Your task to perform on an android device: Open the stopwatch Image 0: 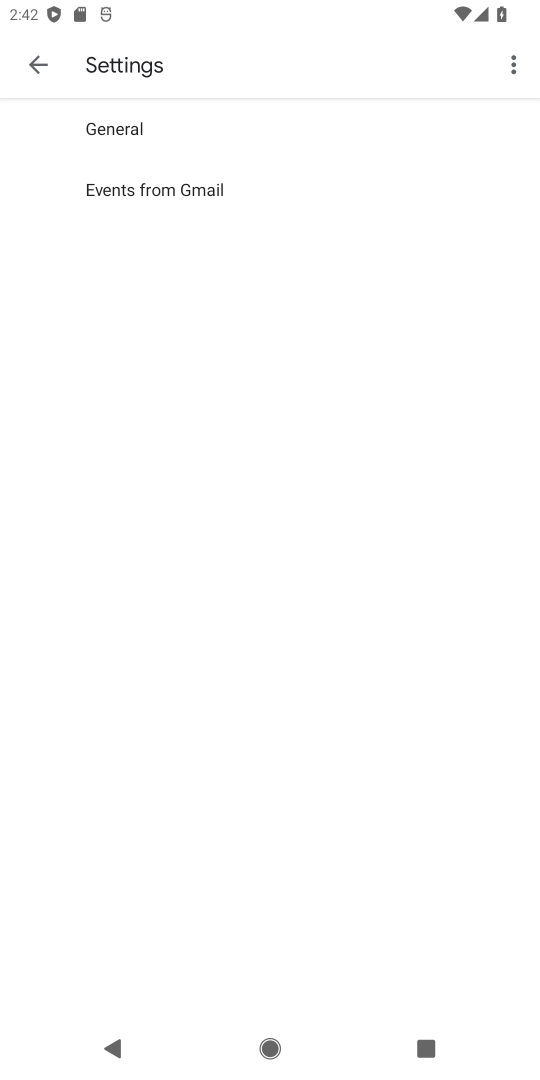
Step 0: press home button
Your task to perform on an android device: Open the stopwatch Image 1: 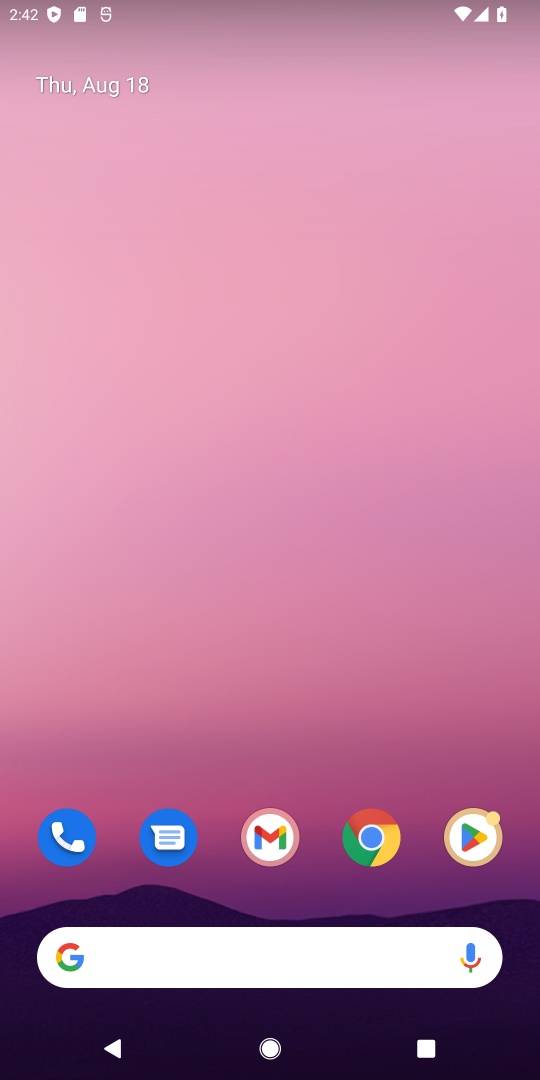
Step 1: drag from (362, 762) to (420, 0)
Your task to perform on an android device: Open the stopwatch Image 2: 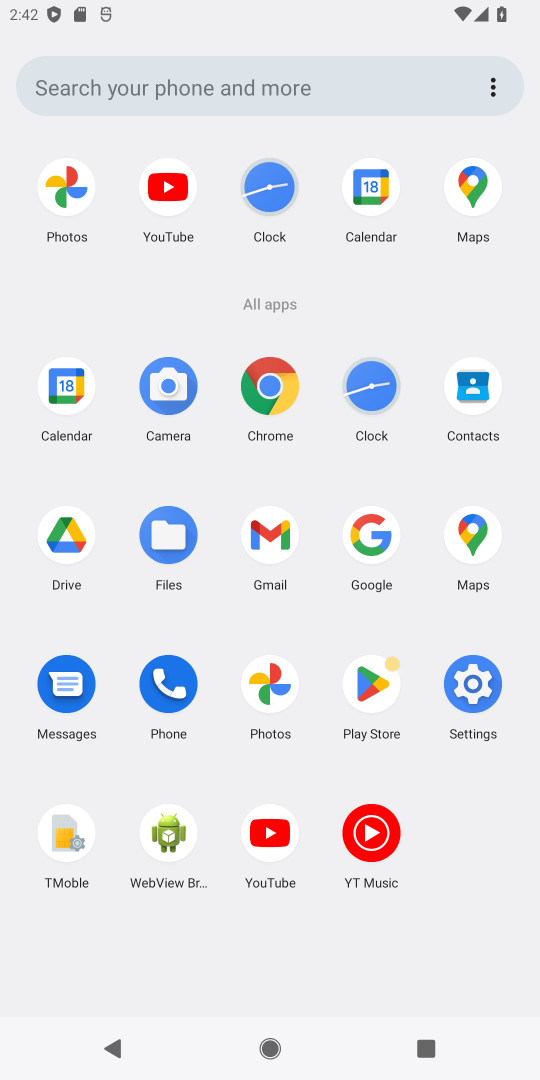
Step 2: click (374, 373)
Your task to perform on an android device: Open the stopwatch Image 3: 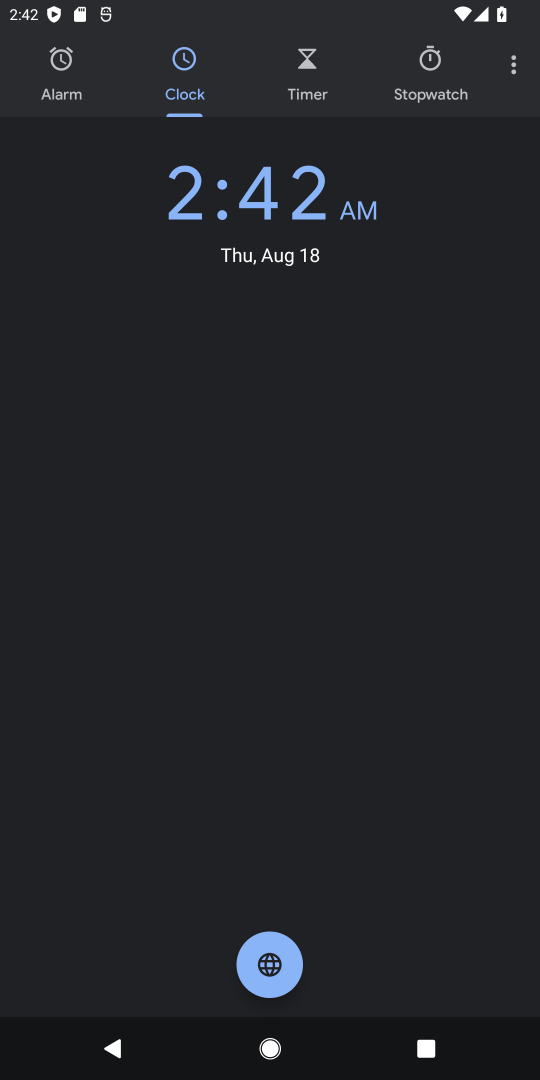
Step 3: click (438, 79)
Your task to perform on an android device: Open the stopwatch Image 4: 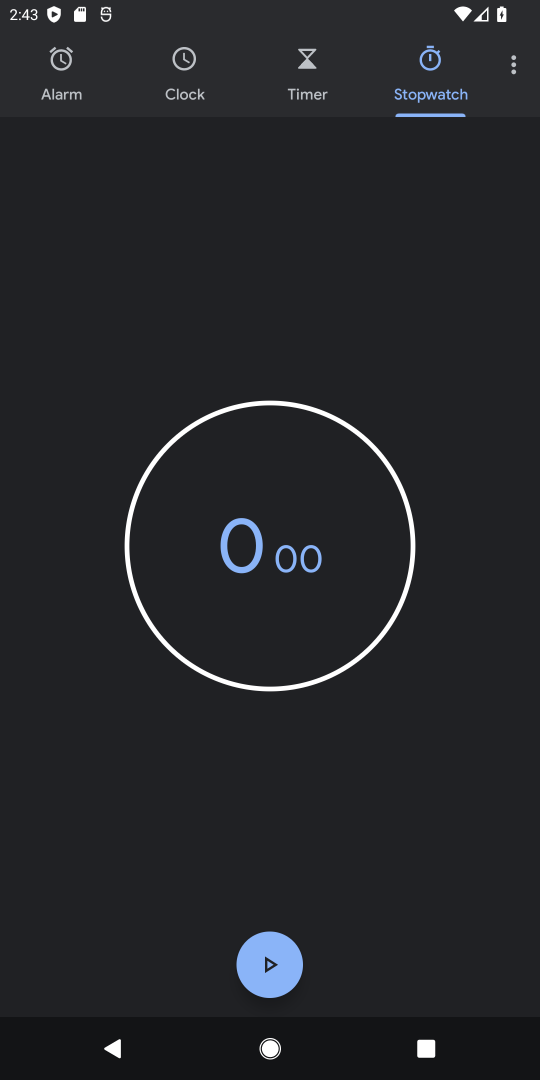
Step 4: task complete